Your task to perform on an android device: Go to Maps Image 0: 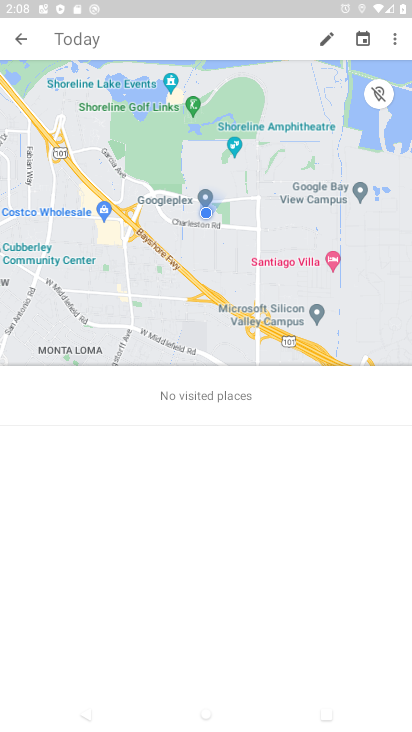
Step 0: click (20, 40)
Your task to perform on an android device: Go to Maps Image 1: 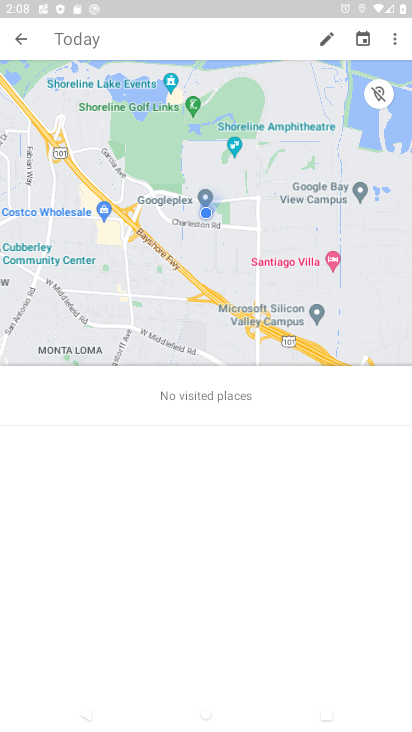
Step 1: click (20, 40)
Your task to perform on an android device: Go to Maps Image 2: 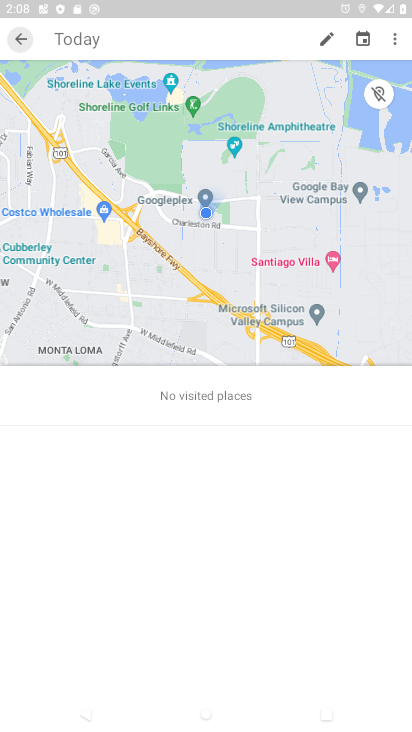
Step 2: click (20, 40)
Your task to perform on an android device: Go to Maps Image 3: 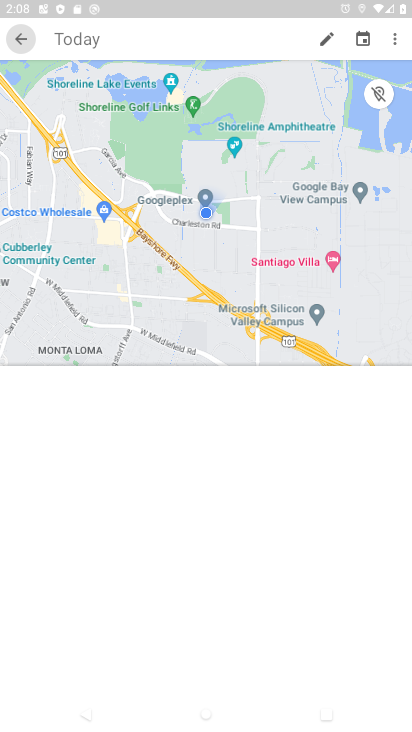
Step 3: click (20, 40)
Your task to perform on an android device: Go to Maps Image 4: 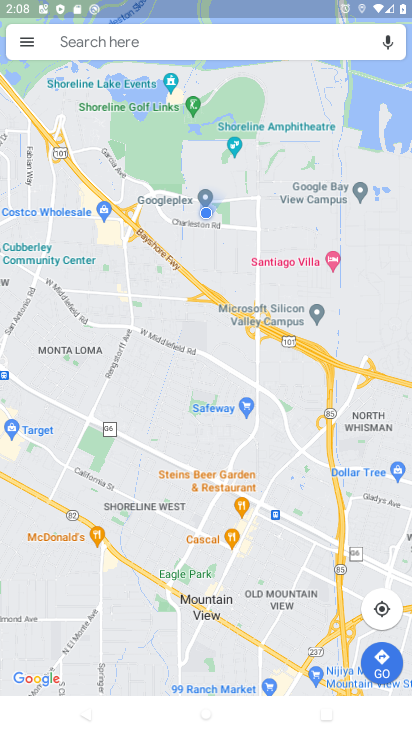
Step 4: task complete